Your task to perform on an android device: Show me productivity apps on the Play Store Image 0: 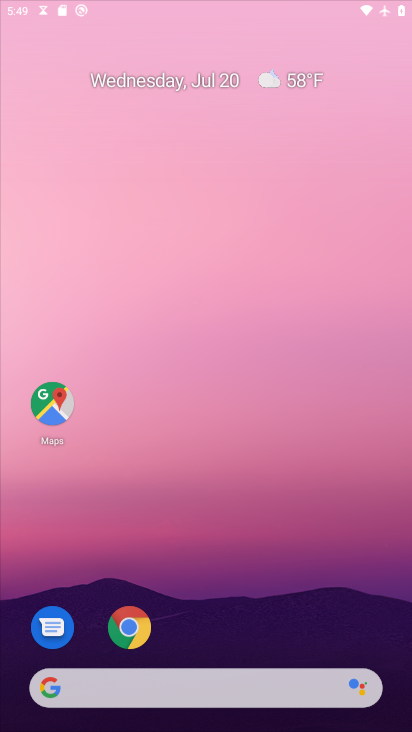
Step 0: press home button
Your task to perform on an android device: Show me productivity apps on the Play Store Image 1: 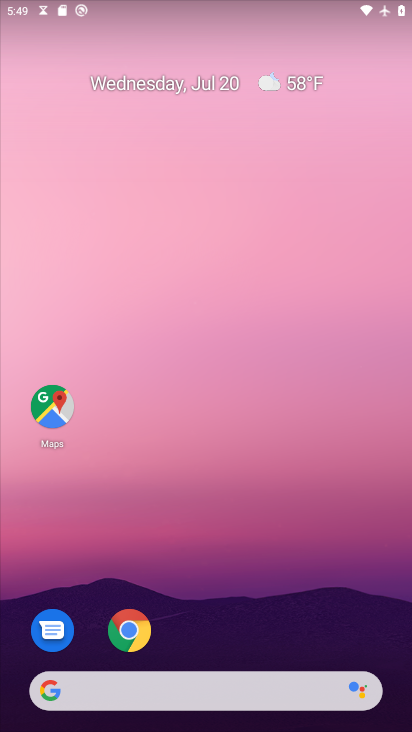
Step 1: drag from (193, 645) to (192, 128)
Your task to perform on an android device: Show me productivity apps on the Play Store Image 2: 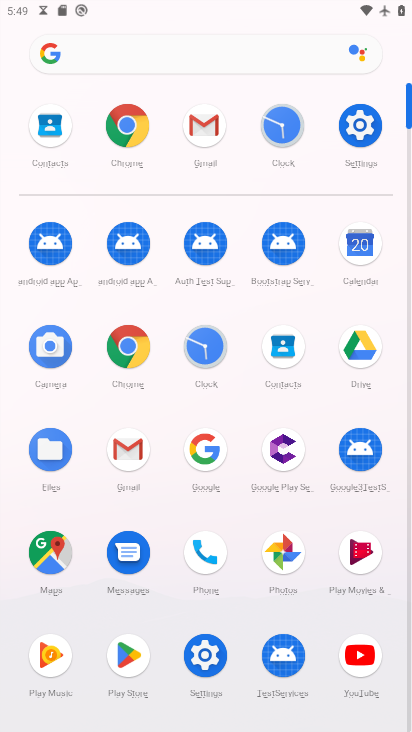
Step 2: click (112, 660)
Your task to perform on an android device: Show me productivity apps on the Play Store Image 3: 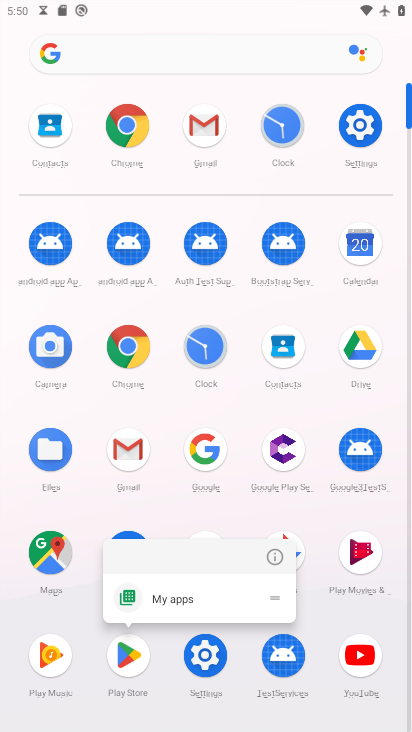
Step 3: click (124, 661)
Your task to perform on an android device: Show me productivity apps on the Play Store Image 4: 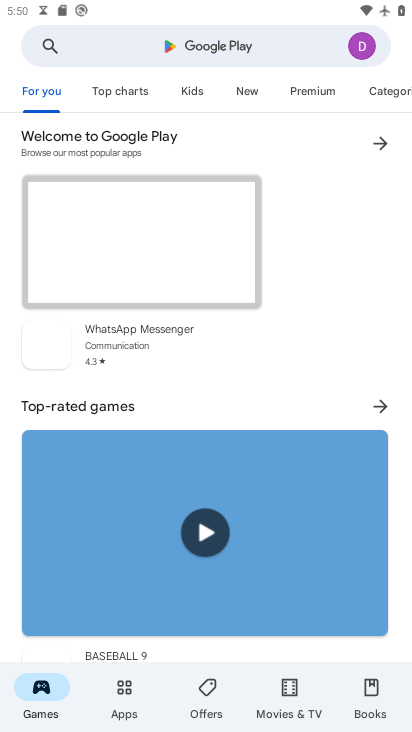
Step 4: click (114, 700)
Your task to perform on an android device: Show me productivity apps on the Play Store Image 5: 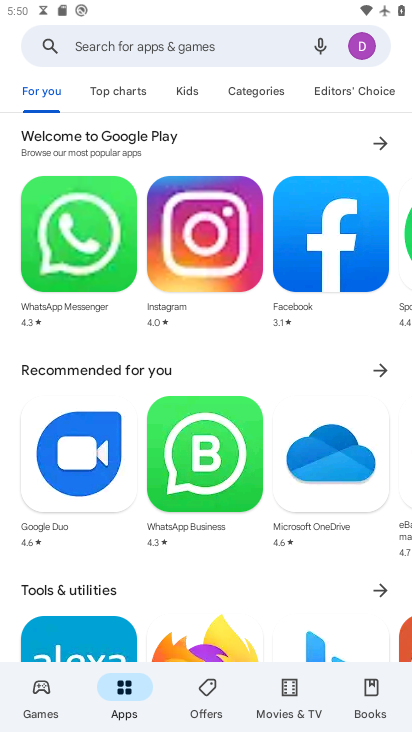
Step 5: click (245, 82)
Your task to perform on an android device: Show me productivity apps on the Play Store Image 6: 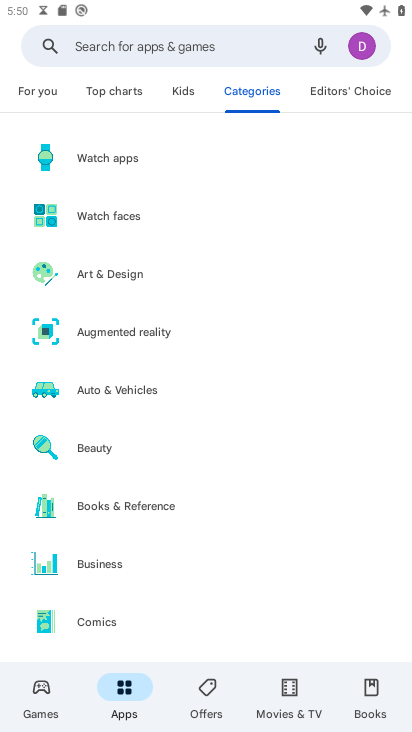
Step 6: drag from (254, 583) to (187, 21)
Your task to perform on an android device: Show me productivity apps on the Play Store Image 7: 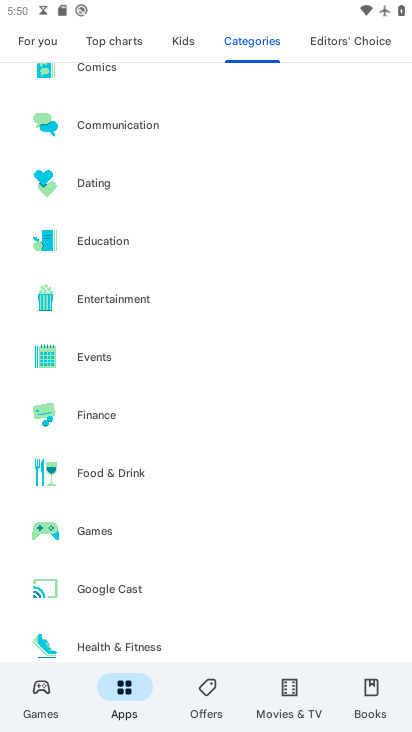
Step 7: drag from (291, 609) to (294, 111)
Your task to perform on an android device: Show me productivity apps on the Play Store Image 8: 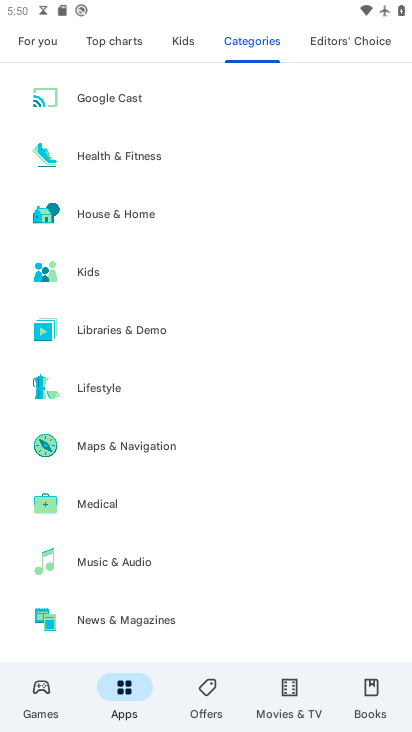
Step 8: drag from (266, 564) to (342, 75)
Your task to perform on an android device: Show me productivity apps on the Play Store Image 9: 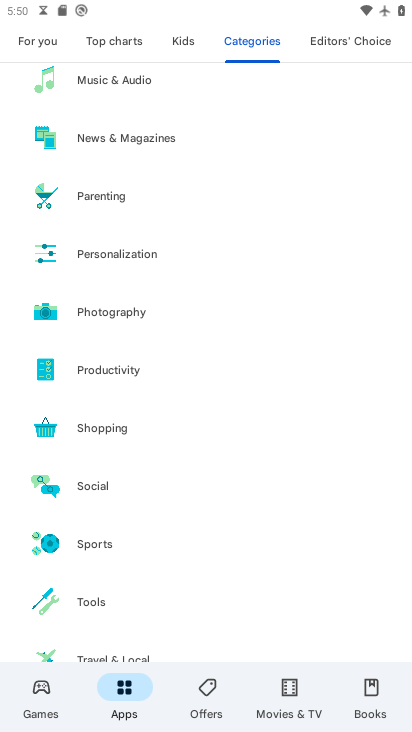
Step 9: drag from (280, 584) to (348, 65)
Your task to perform on an android device: Show me productivity apps on the Play Store Image 10: 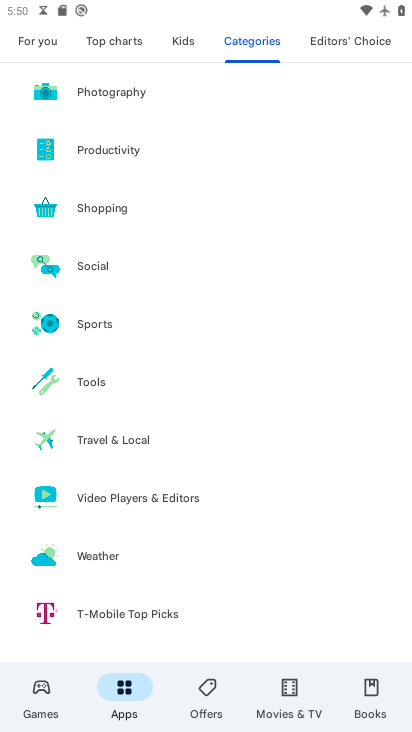
Step 10: click (110, 143)
Your task to perform on an android device: Show me productivity apps on the Play Store Image 11: 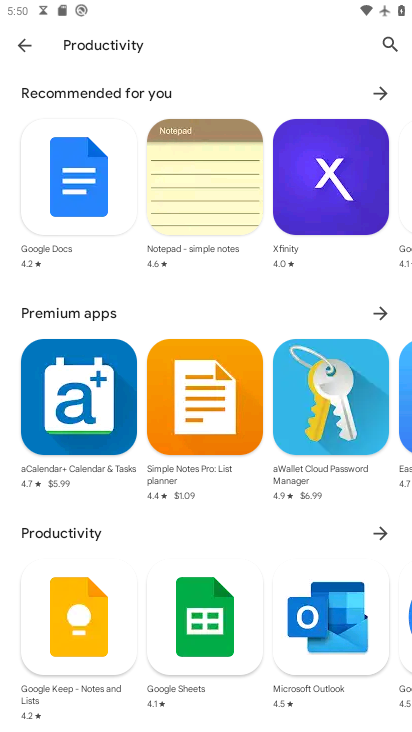
Step 11: task complete